Your task to perform on an android device: clear all cookies in the chrome app Image 0: 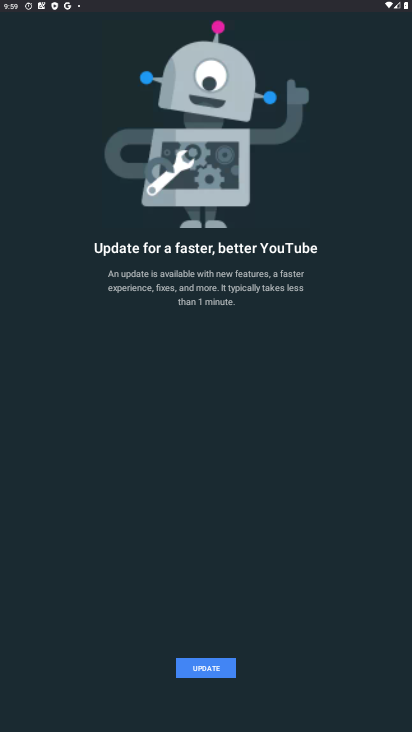
Step 0: drag from (243, 625) to (331, 189)
Your task to perform on an android device: clear all cookies in the chrome app Image 1: 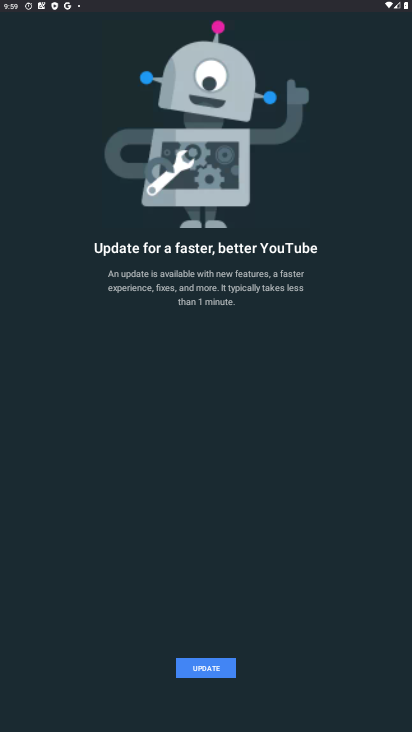
Step 1: press home button
Your task to perform on an android device: clear all cookies in the chrome app Image 2: 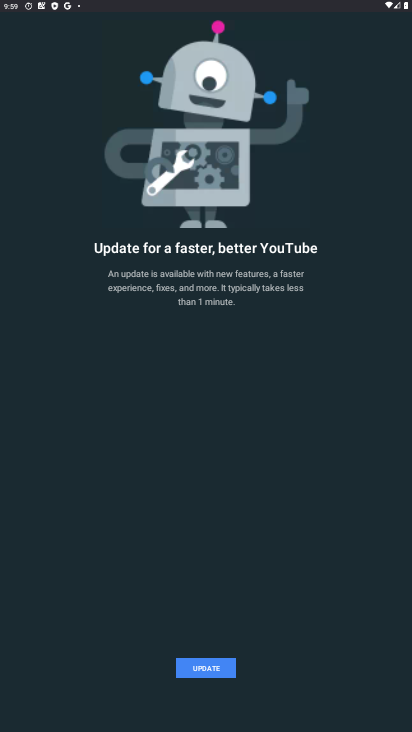
Step 2: press home button
Your task to perform on an android device: clear all cookies in the chrome app Image 3: 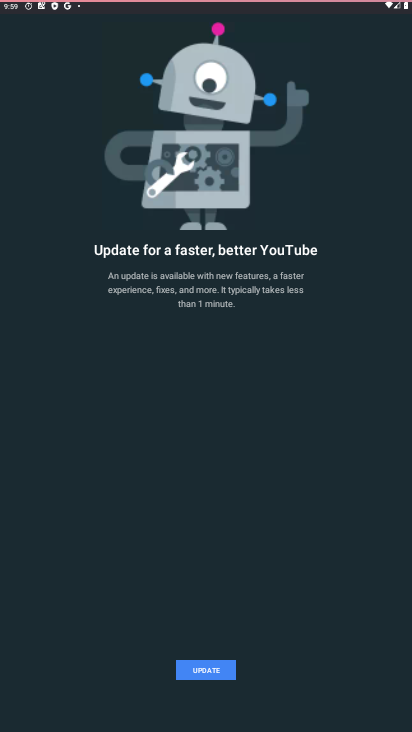
Step 3: drag from (277, 588) to (268, 364)
Your task to perform on an android device: clear all cookies in the chrome app Image 4: 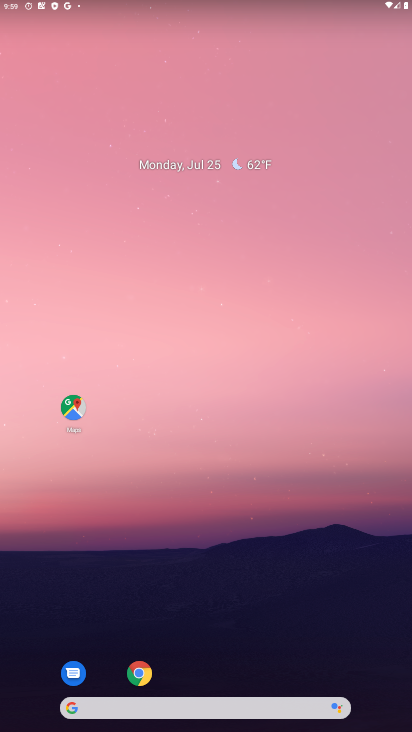
Step 4: drag from (219, 629) to (282, 181)
Your task to perform on an android device: clear all cookies in the chrome app Image 5: 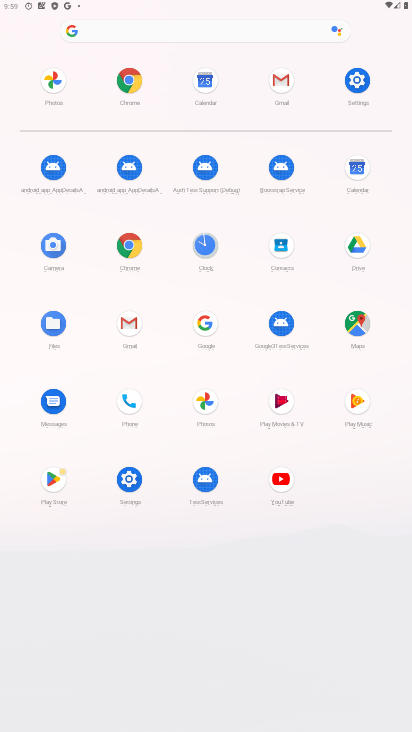
Step 5: click (123, 243)
Your task to perform on an android device: clear all cookies in the chrome app Image 6: 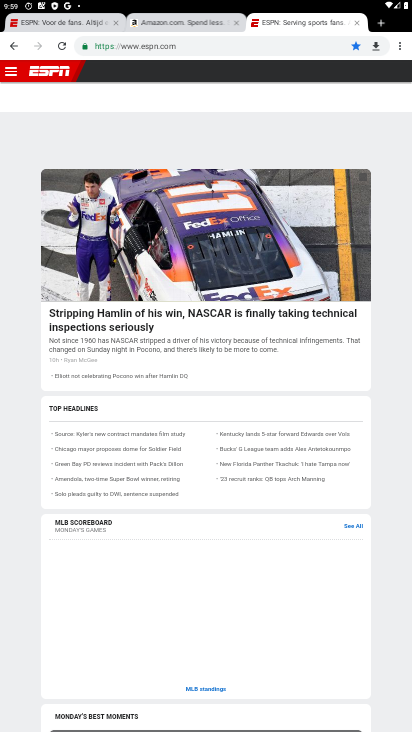
Step 6: drag from (402, 40) to (305, 137)
Your task to perform on an android device: clear all cookies in the chrome app Image 7: 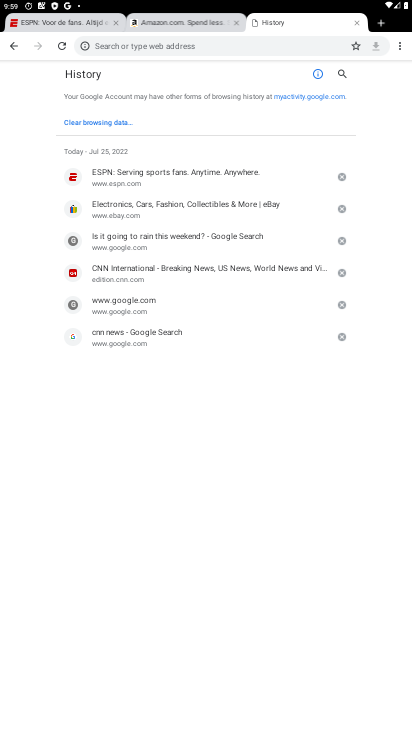
Step 7: click (85, 123)
Your task to perform on an android device: clear all cookies in the chrome app Image 8: 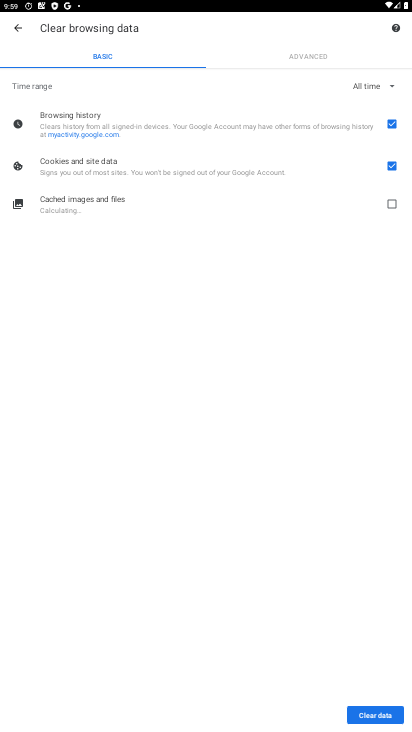
Step 8: drag from (216, 481) to (220, 116)
Your task to perform on an android device: clear all cookies in the chrome app Image 9: 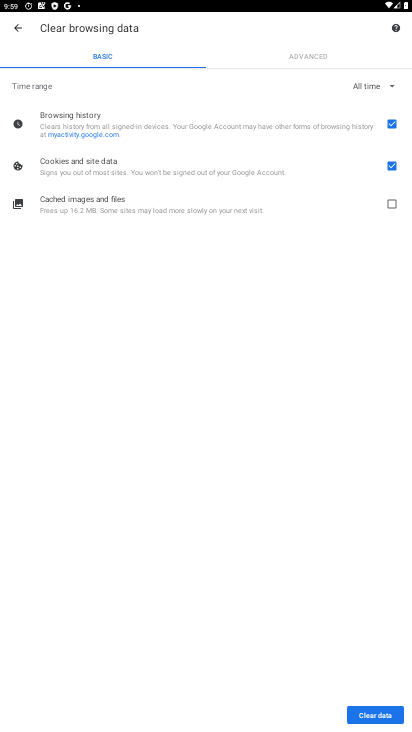
Step 9: click (203, 179)
Your task to perform on an android device: clear all cookies in the chrome app Image 10: 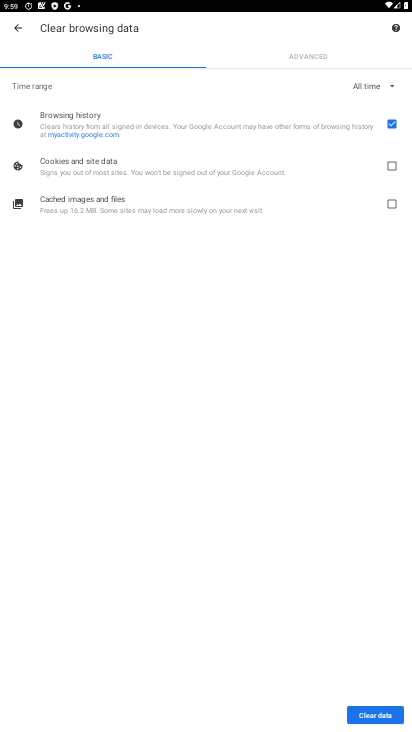
Step 10: drag from (183, 548) to (181, 194)
Your task to perform on an android device: clear all cookies in the chrome app Image 11: 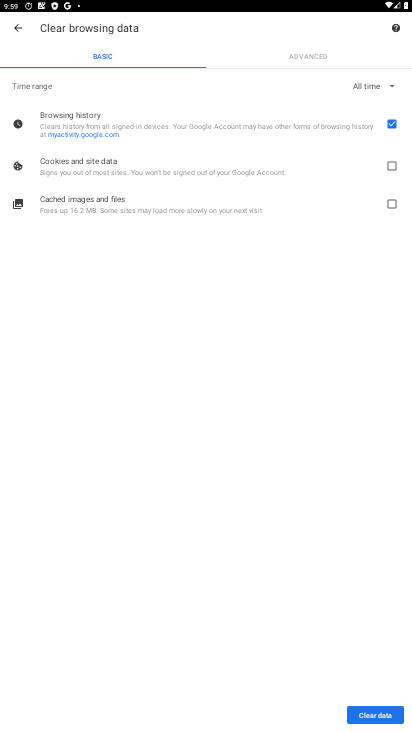
Step 11: click (391, 124)
Your task to perform on an android device: clear all cookies in the chrome app Image 12: 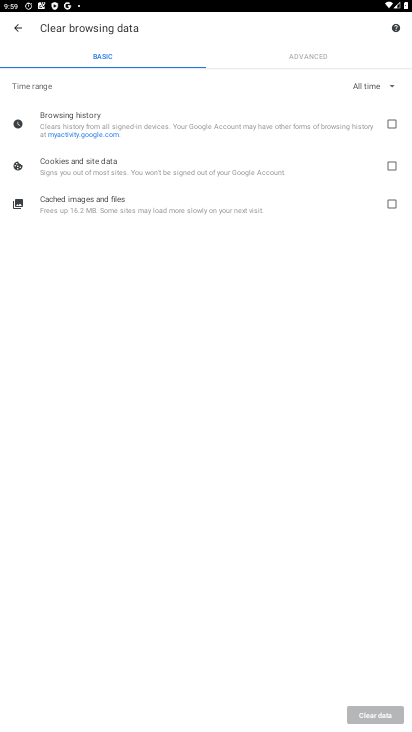
Step 12: click (393, 163)
Your task to perform on an android device: clear all cookies in the chrome app Image 13: 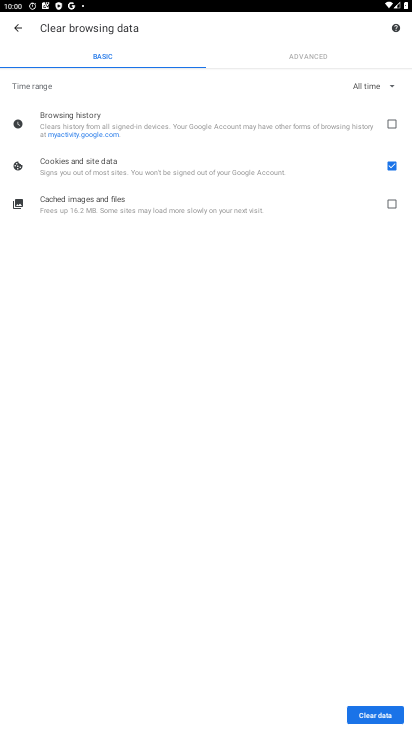
Step 13: click (385, 712)
Your task to perform on an android device: clear all cookies in the chrome app Image 14: 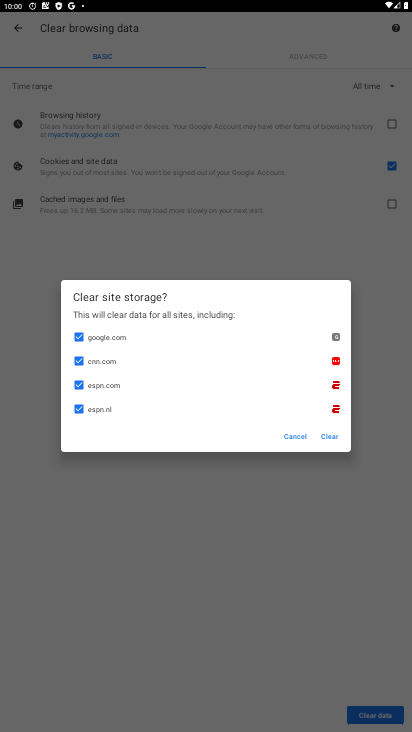
Step 14: click (322, 435)
Your task to perform on an android device: clear all cookies in the chrome app Image 15: 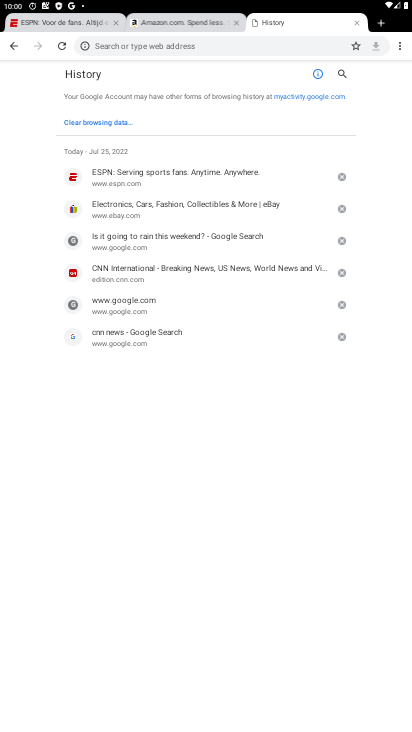
Step 15: task complete